Your task to perform on an android device: Open CNN.com Image 0: 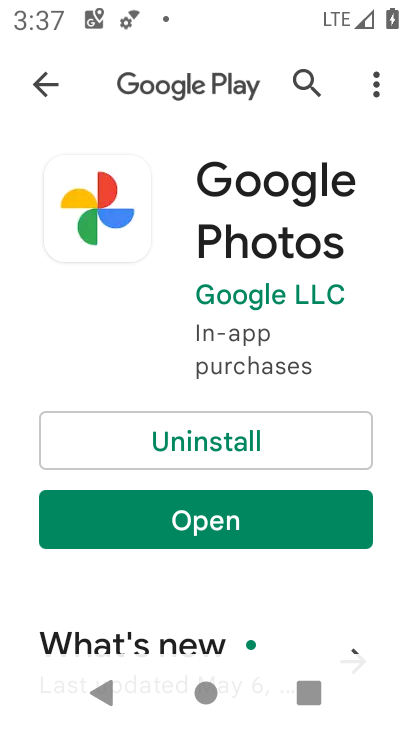
Step 0: press home button
Your task to perform on an android device: Open CNN.com Image 1: 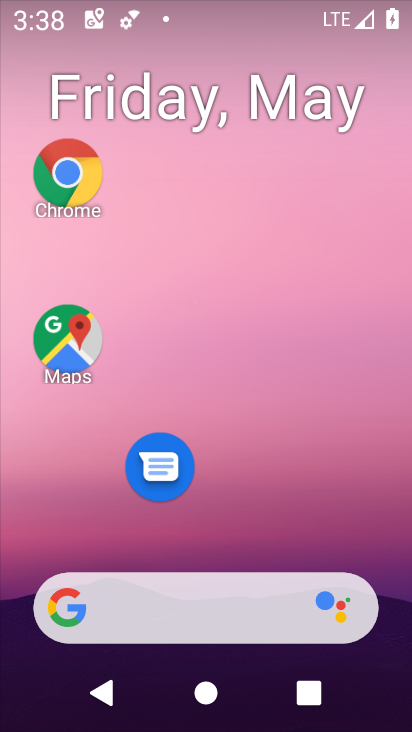
Step 1: click (62, 183)
Your task to perform on an android device: Open CNN.com Image 2: 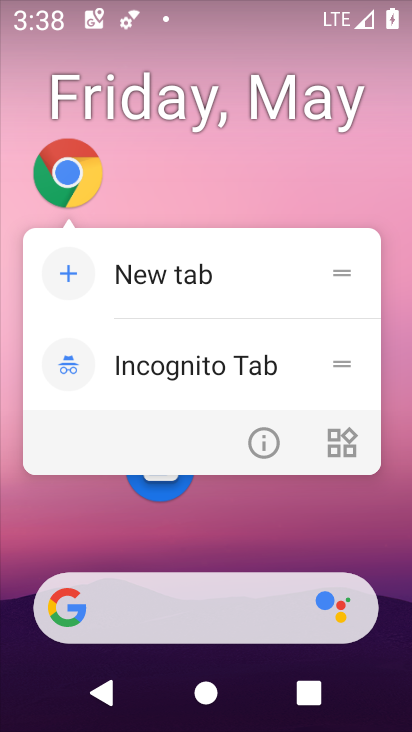
Step 2: click (75, 160)
Your task to perform on an android device: Open CNN.com Image 3: 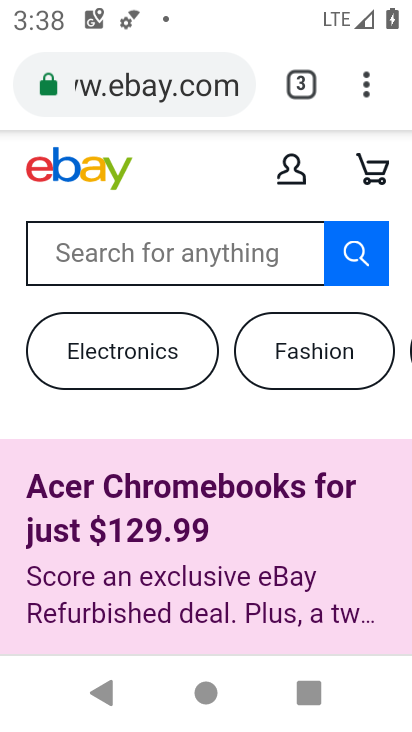
Step 3: click (303, 83)
Your task to perform on an android device: Open CNN.com Image 4: 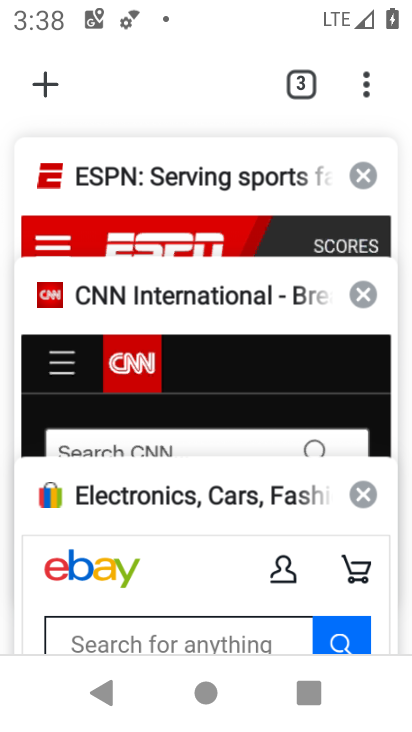
Step 4: click (171, 296)
Your task to perform on an android device: Open CNN.com Image 5: 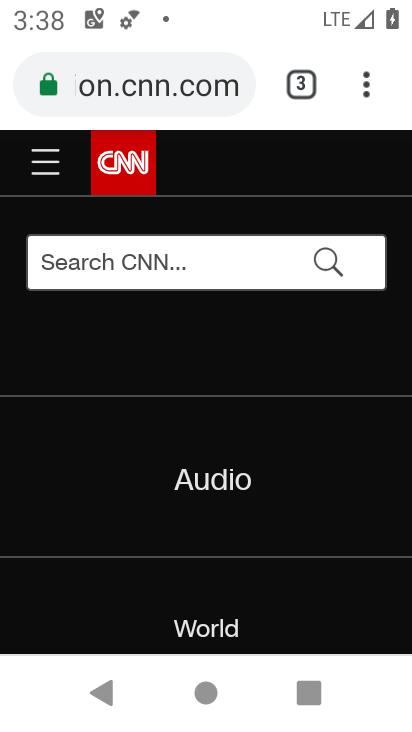
Step 5: task complete